Your task to perform on an android device: change alarm snooze length Image 0: 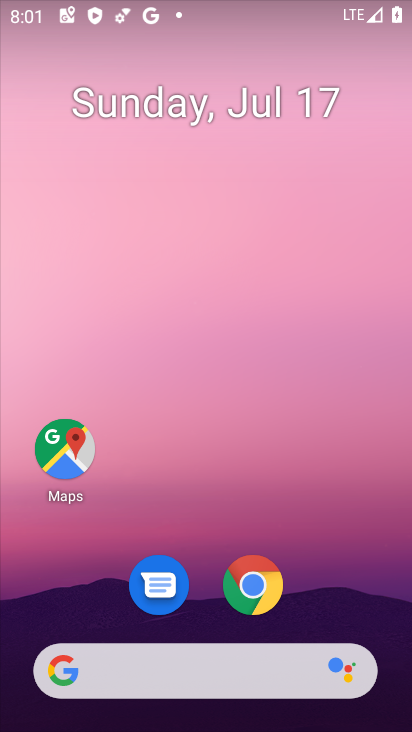
Step 0: drag from (337, 574) to (286, 77)
Your task to perform on an android device: change alarm snooze length Image 1: 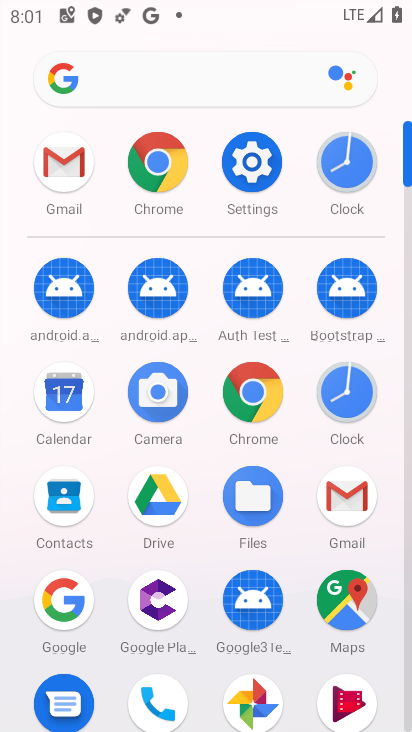
Step 1: click (350, 163)
Your task to perform on an android device: change alarm snooze length Image 2: 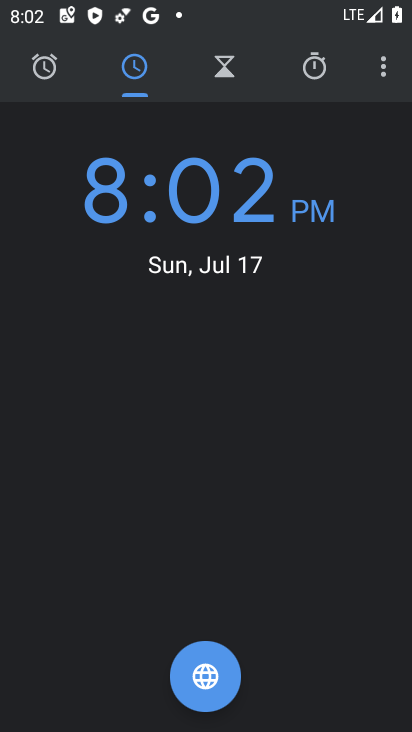
Step 2: click (385, 73)
Your task to perform on an android device: change alarm snooze length Image 3: 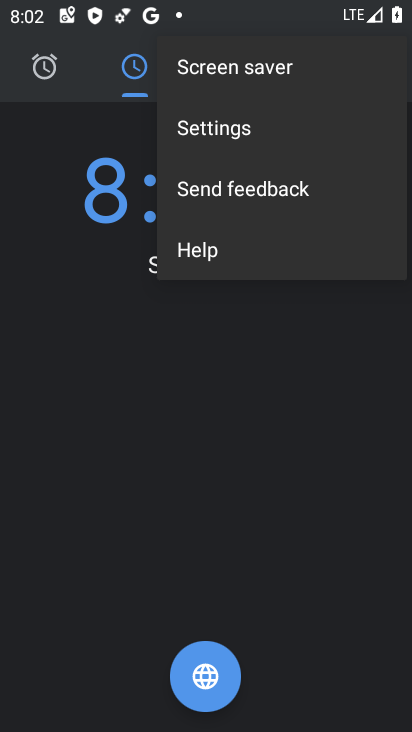
Step 3: click (233, 122)
Your task to perform on an android device: change alarm snooze length Image 4: 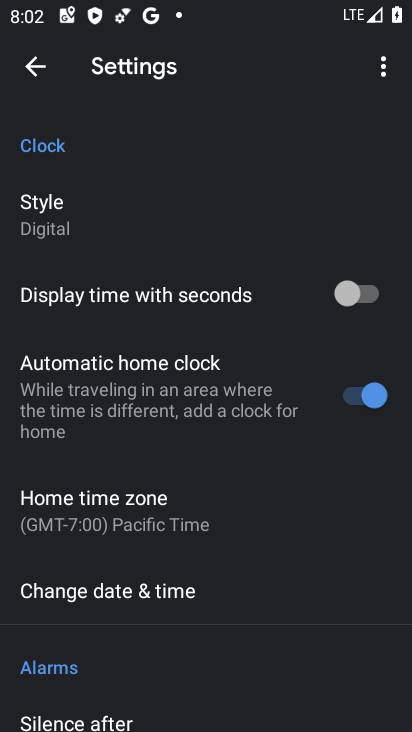
Step 4: drag from (268, 531) to (275, 140)
Your task to perform on an android device: change alarm snooze length Image 5: 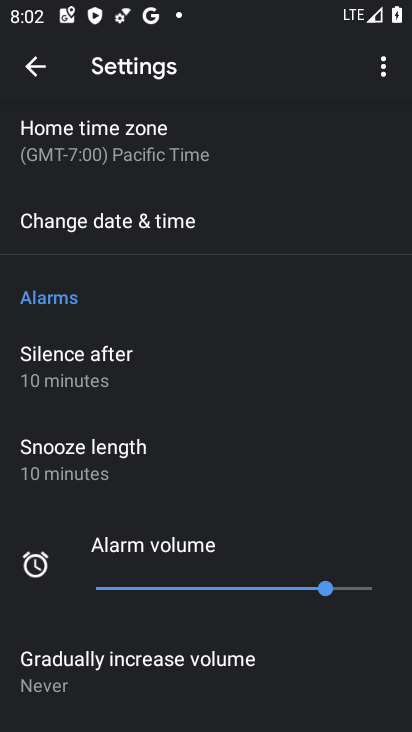
Step 5: click (93, 466)
Your task to perform on an android device: change alarm snooze length Image 6: 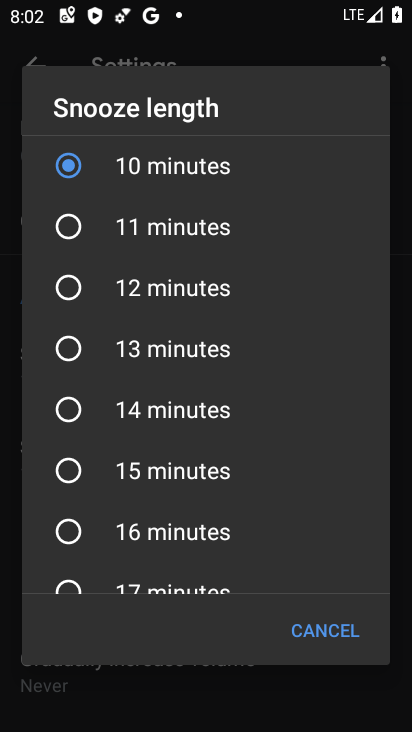
Step 6: click (70, 286)
Your task to perform on an android device: change alarm snooze length Image 7: 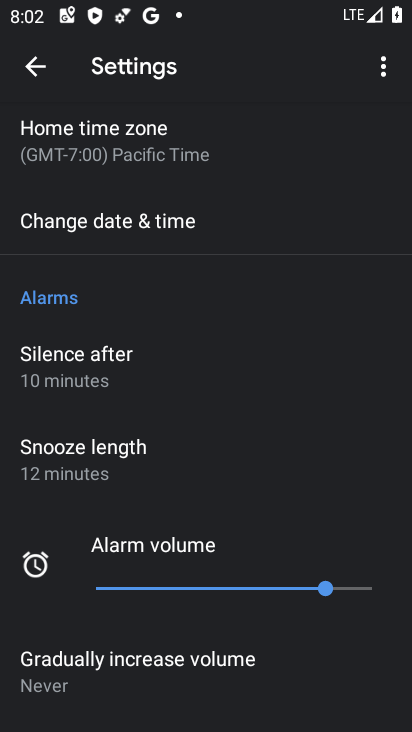
Step 7: task complete